Your task to perform on an android device: What is the news today? Image 0: 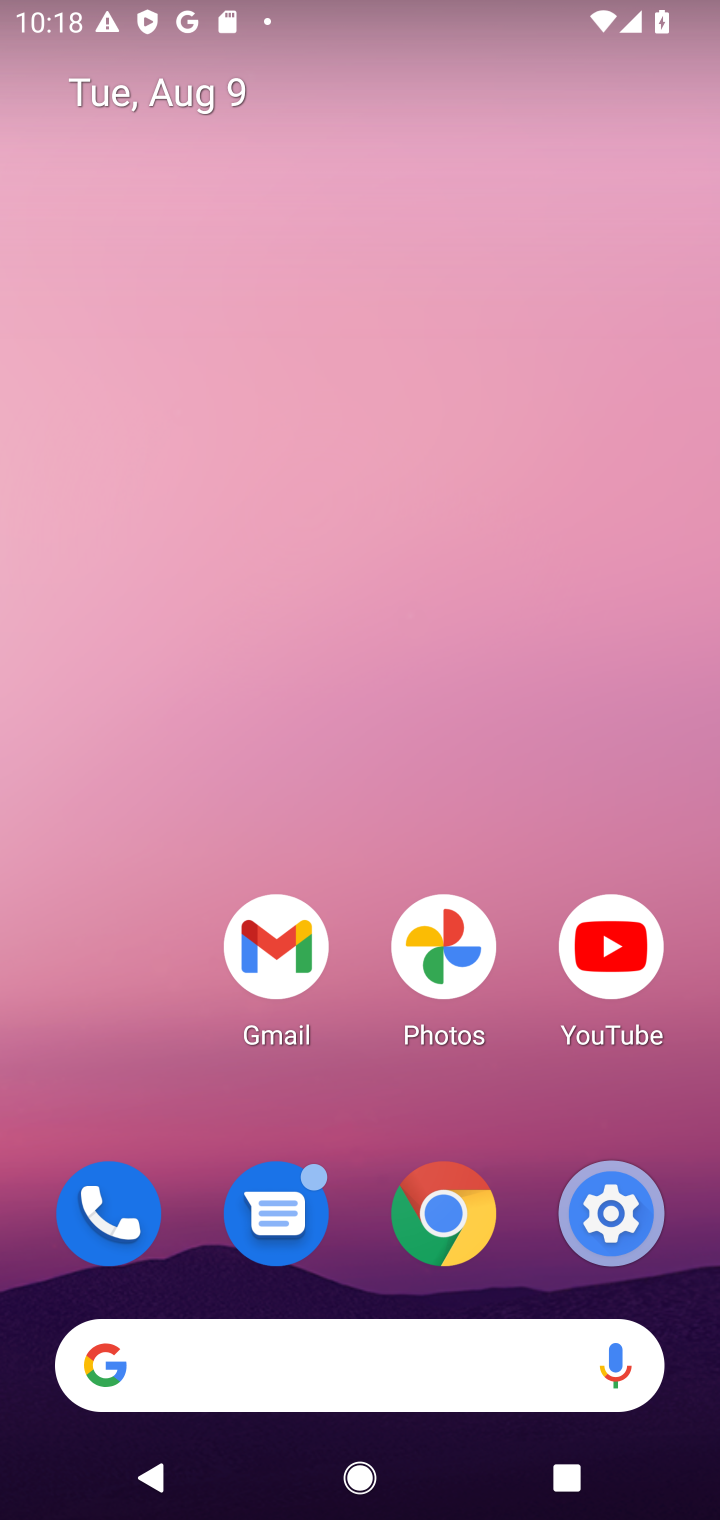
Step 0: click (370, 1356)
Your task to perform on an android device: What is the news today? Image 1: 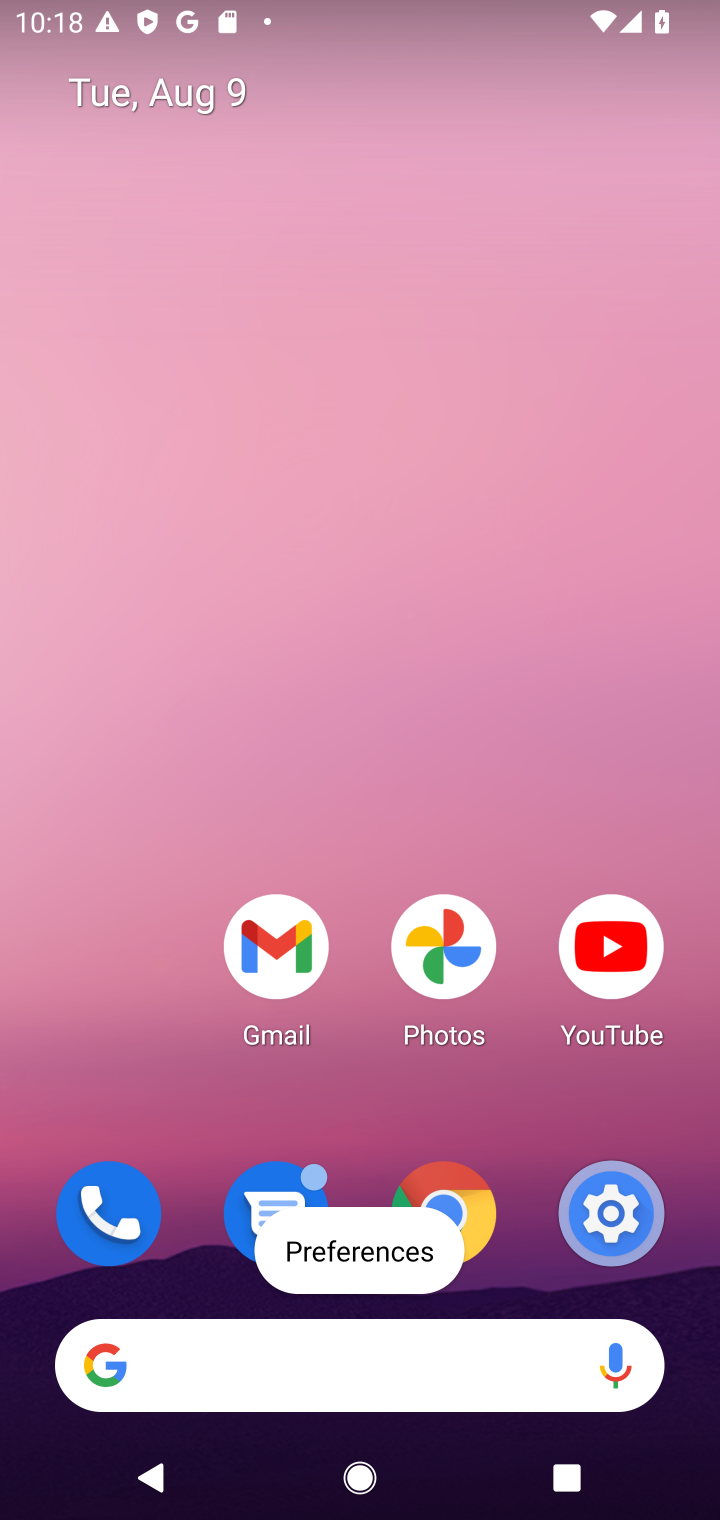
Step 1: click (331, 1379)
Your task to perform on an android device: What is the news today? Image 2: 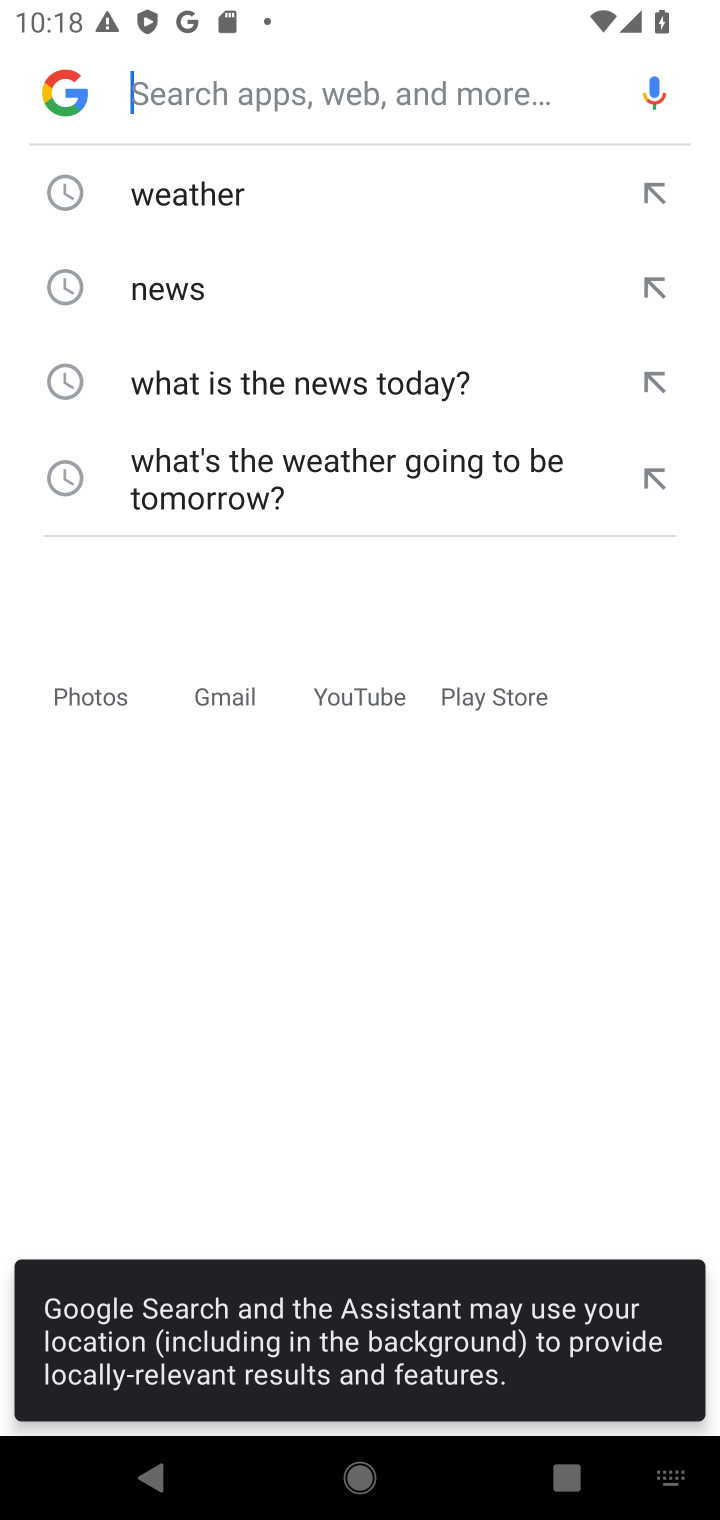
Step 2: click (190, 288)
Your task to perform on an android device: What is the news today? Image 3: 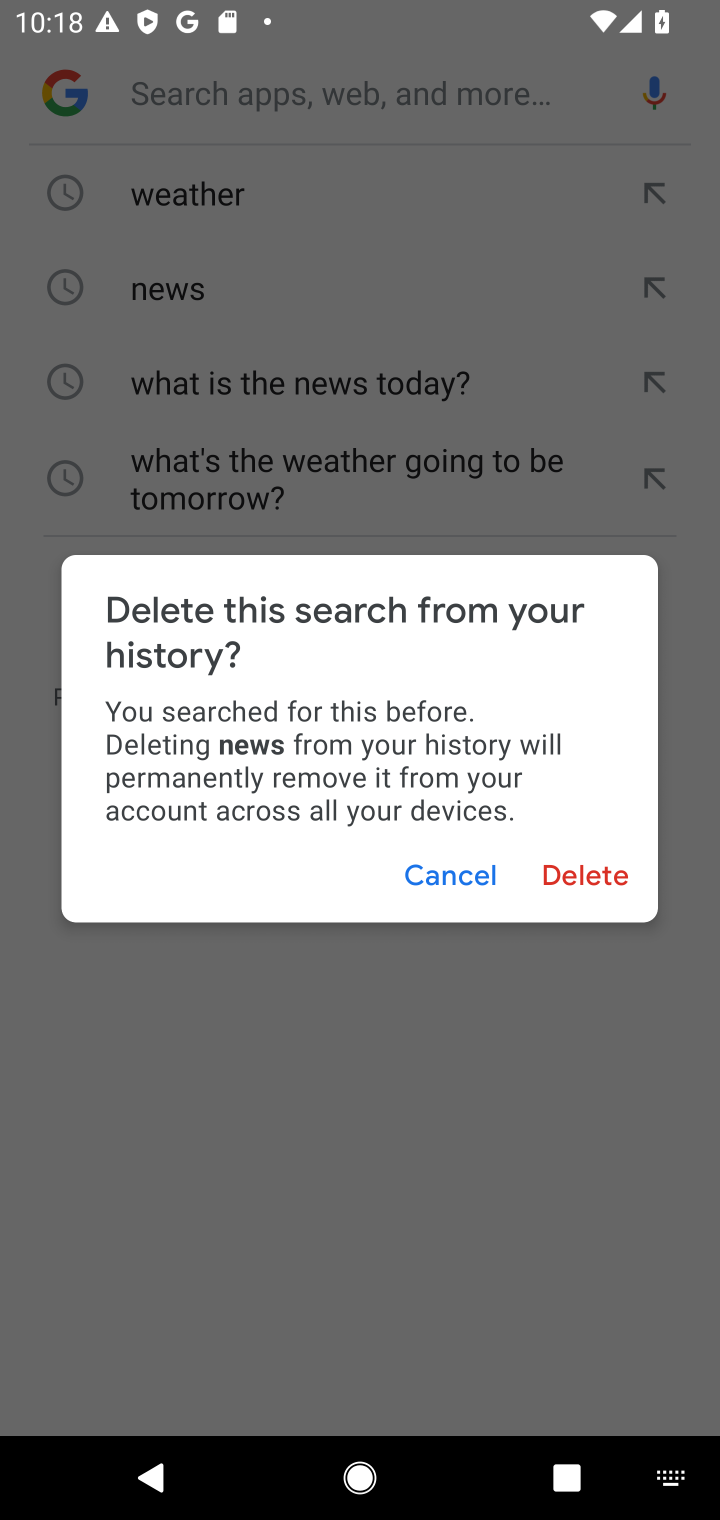
Step 3: click (438, 866)
Your task to perform on an android device: What is the news today? Image 4: 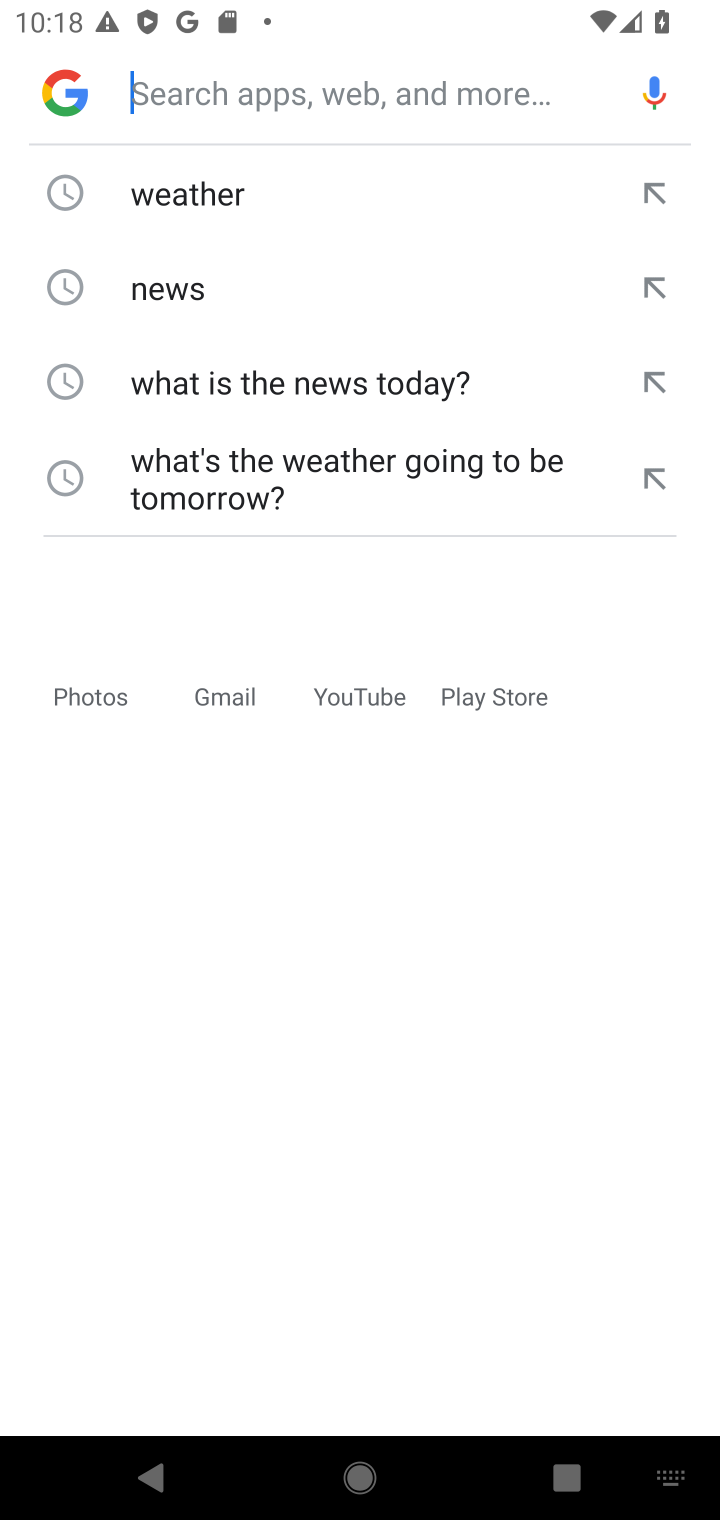
Step 4: click (197, 286)
Your task to perform on an android device: What is the news today? Image 5: 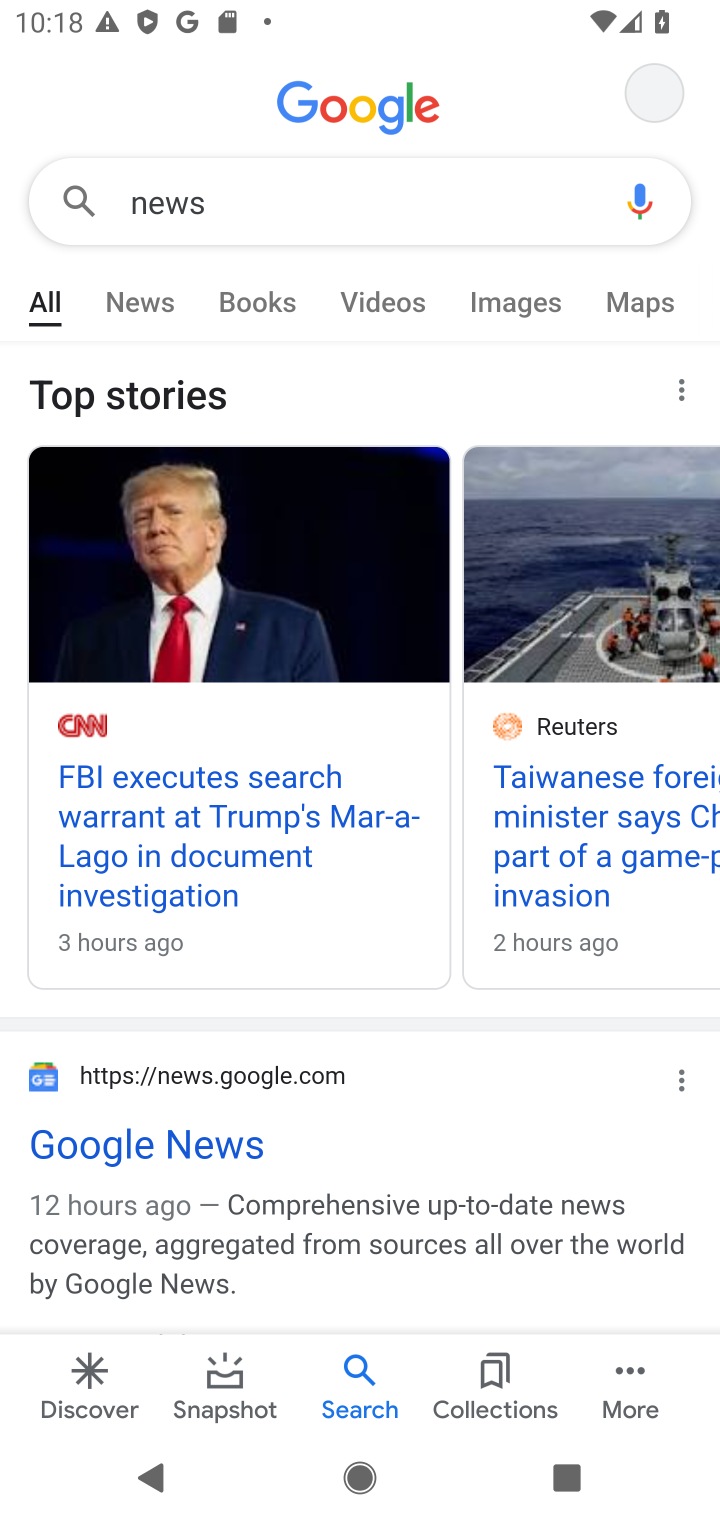
Step 5: task complete